Your task to perform on an android device: What's on my calendar today? Image 0: 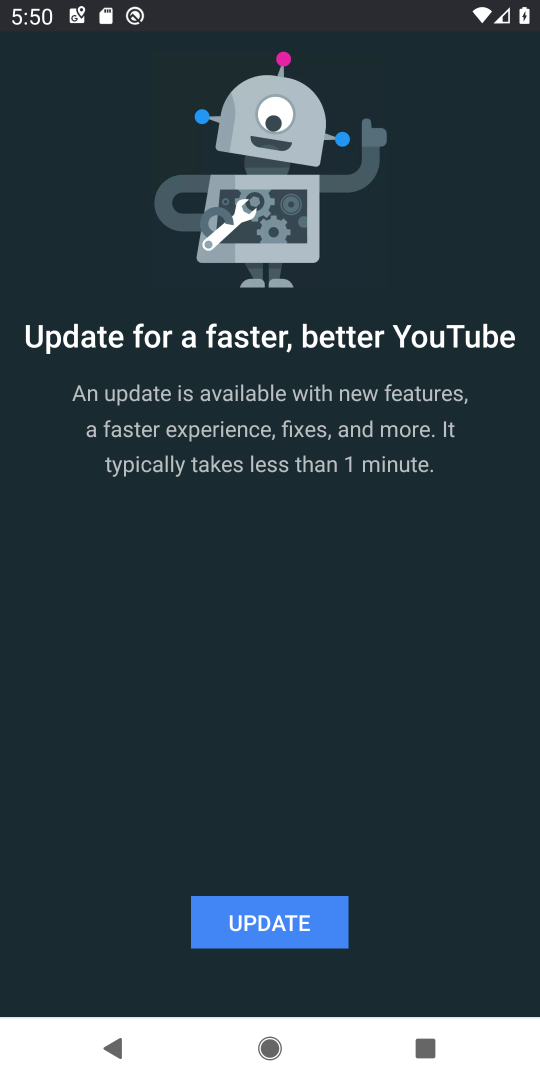
Step 0: press home button
Your task to perform on an android device: What's on my calendar today? Image 1: 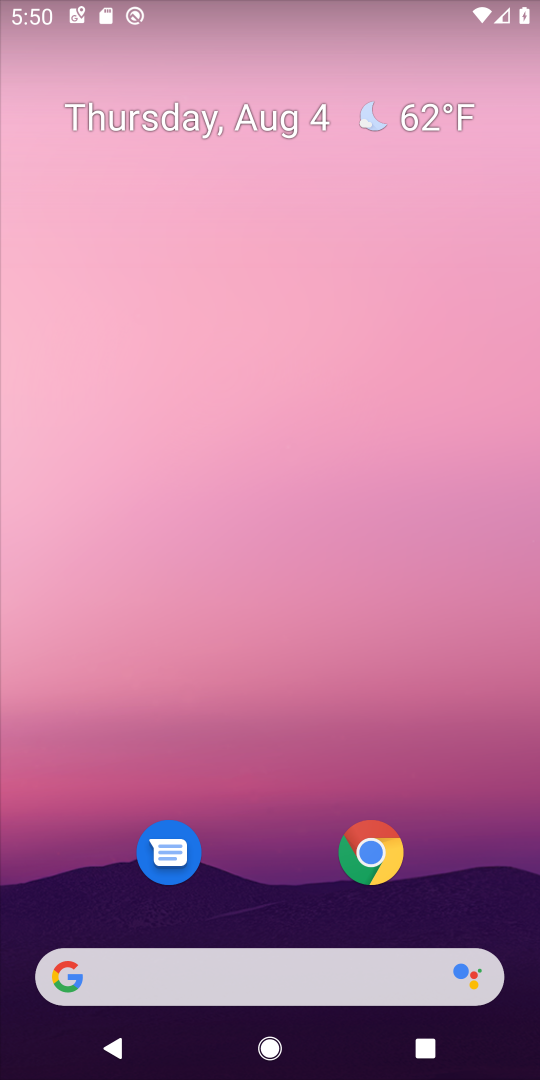
Step 1: drag from (282, 779) to (253, 264)
Your task to perform on an android device: What's on my calendar today? Image 2: 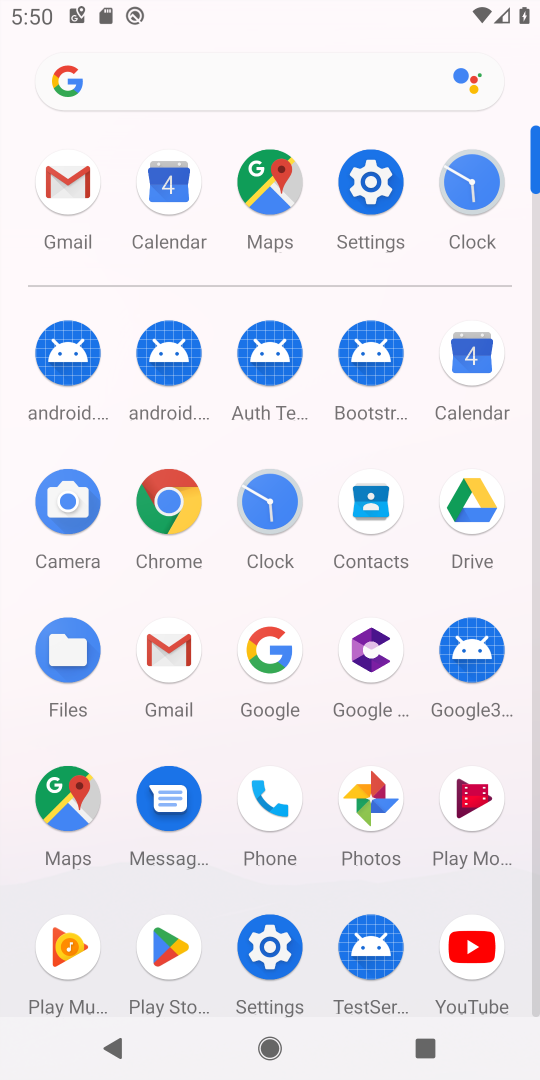
Step 2: click (482, 363)
Your task to perform on an android device: What's on my calendar today? Image 3: 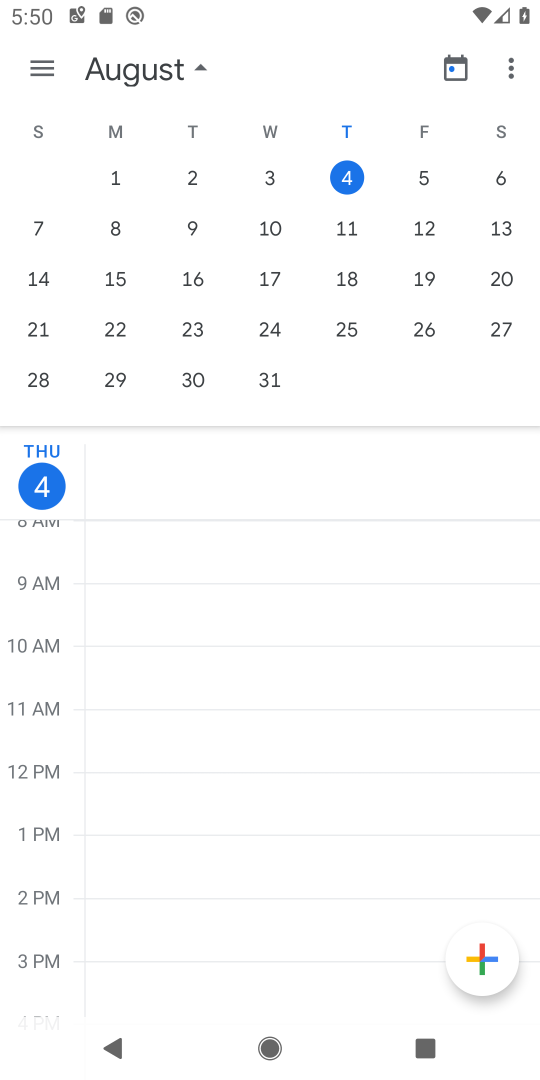
Step 3: click (346, 176)
Your task to perform on an android device: What's on my calendar today? Image 4: 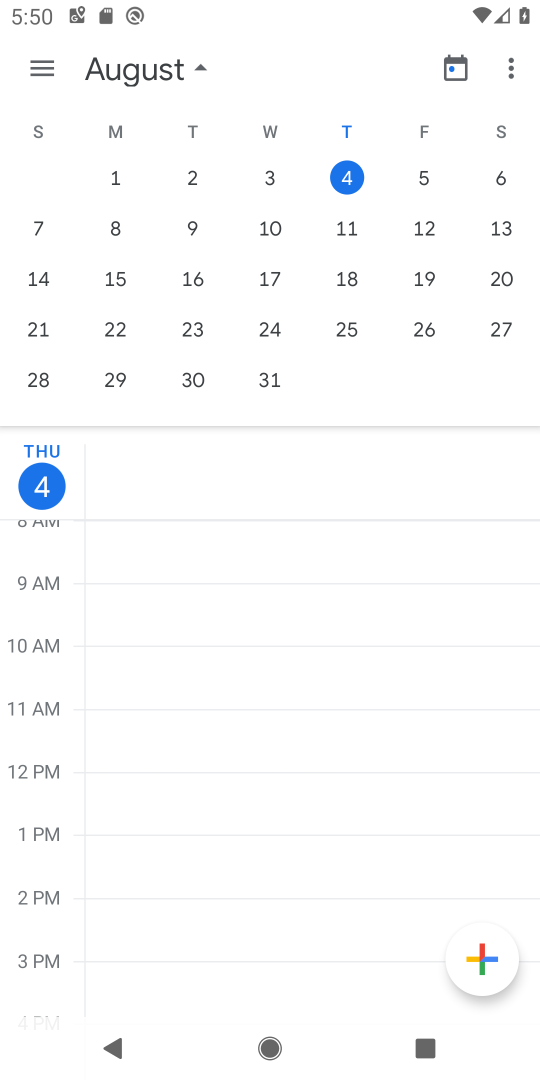
Step 4: click (40, 488)
Your task to perform on an android device: What's on my calendar today? Image 5: 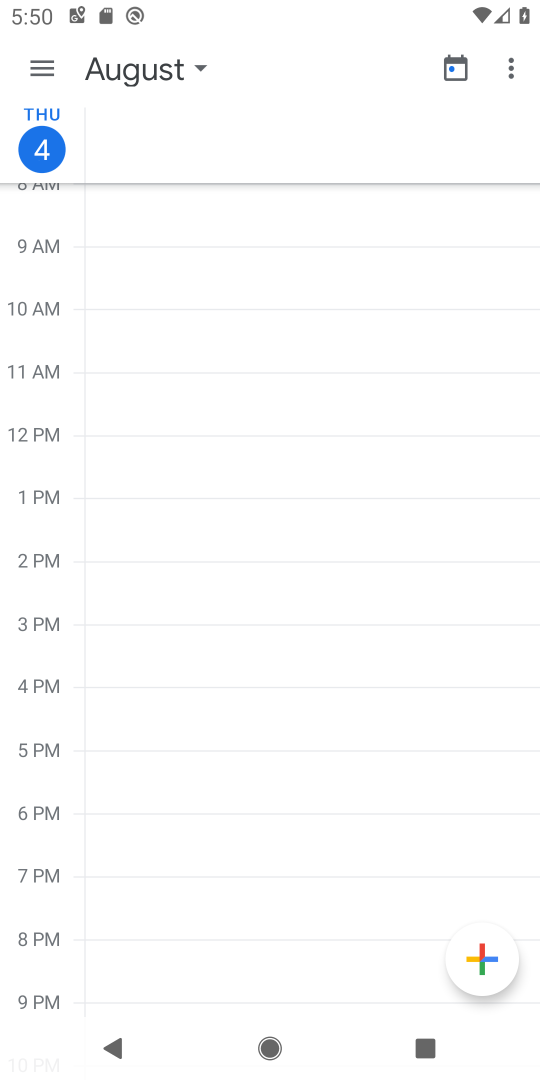
Step 5: task complete